Your task to perform on an android device: Add razer naga to the cart on ebay Image 0: 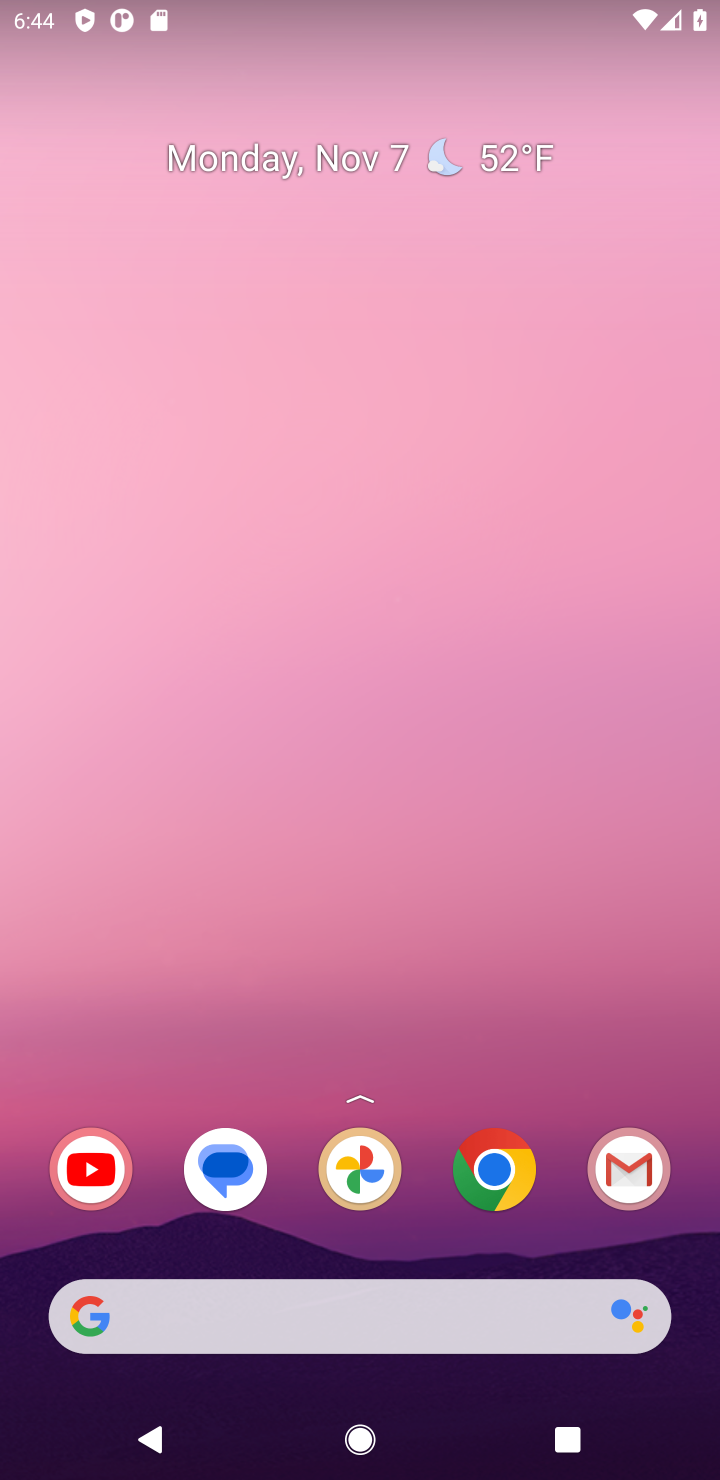
Step 0: click (496, 1184)
Your task to perform on an android device: Add razer naga to the cart on ebay Image 1: 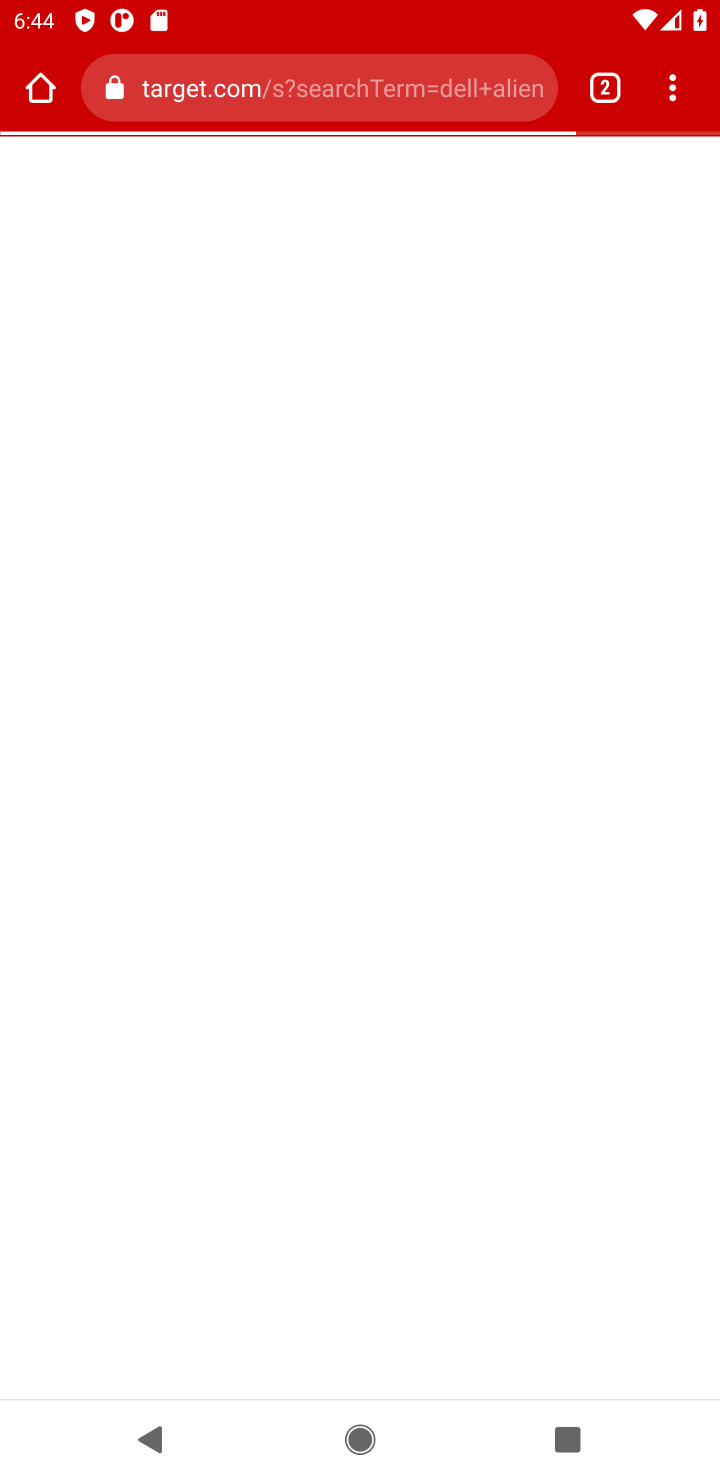
Step 1: click (613, 90)
Your task to perform on an android device: Add razer naga to the cart on ebay Image 2: 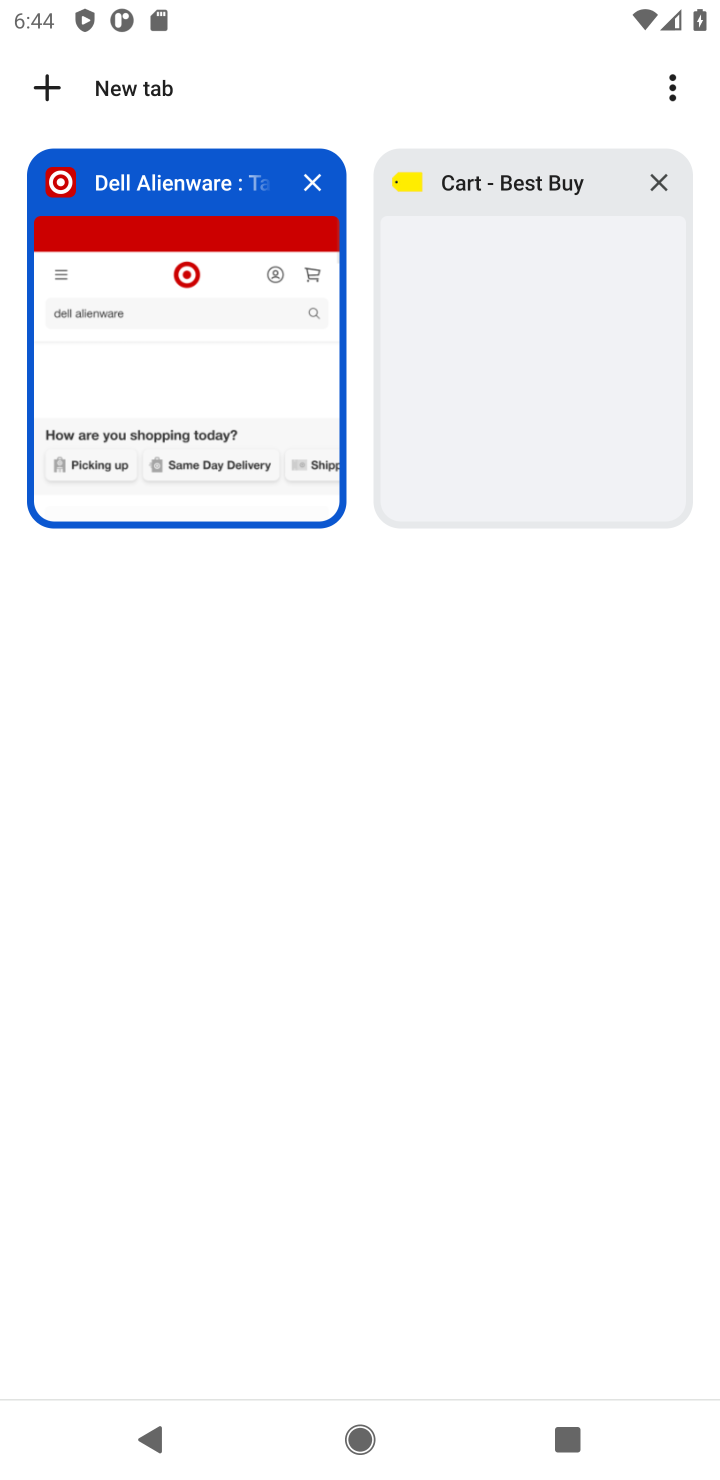
Step 2: click (46, 85)
Your task to perform on an android device: Add razer naga to the cart on ebay Image 3: 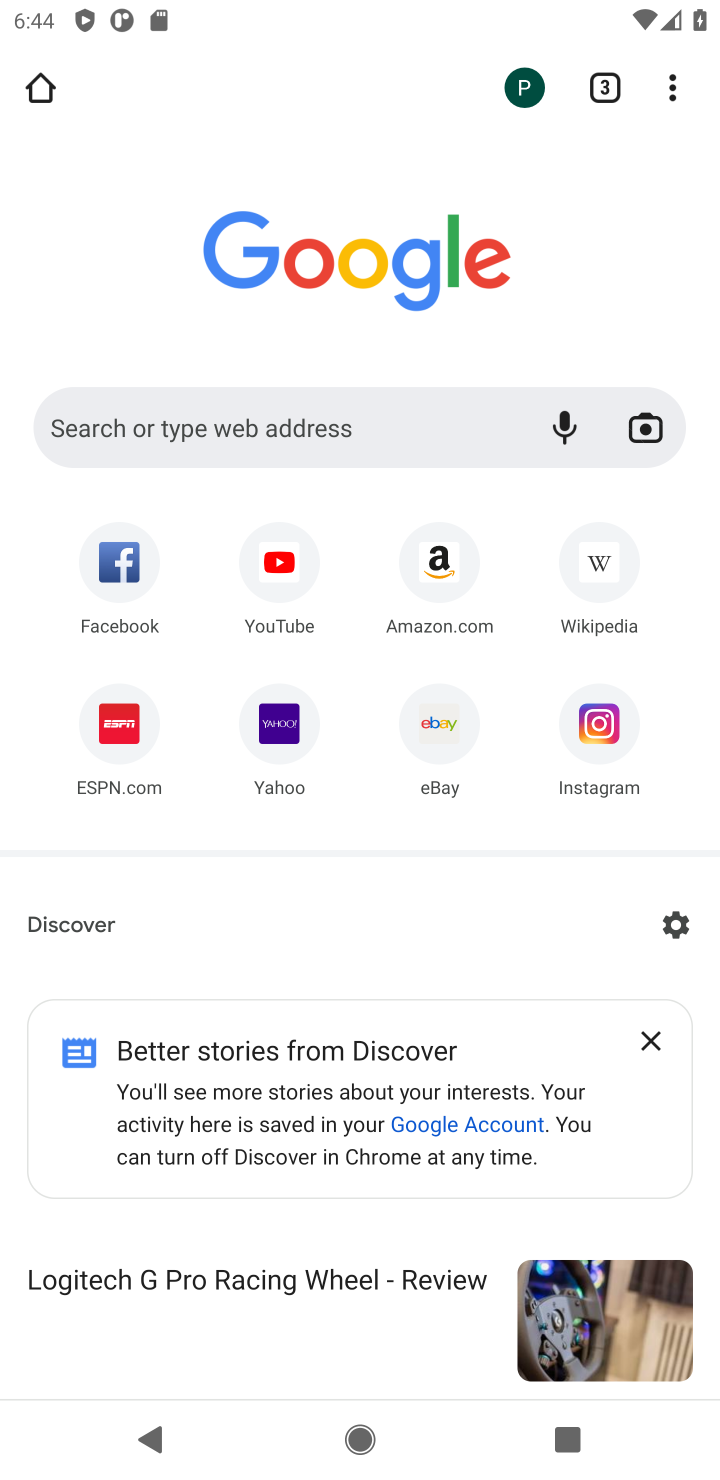
Step 3: click (438, 718)
Your task to perform on an android device: Add razer naga to the cart on ebay Image 4: 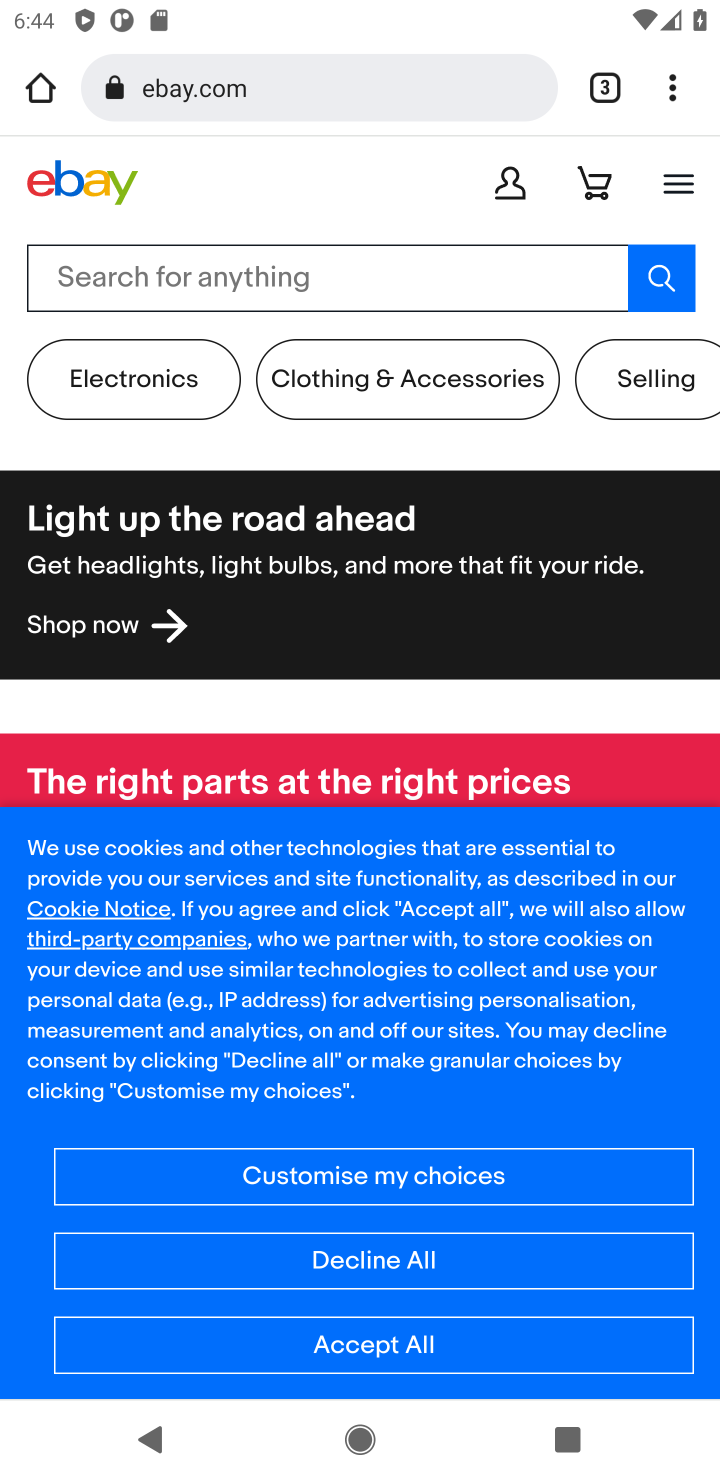
Step 4: click (372, 1251)
Your task to perform on an android device: Add razer naga to the cart on ebay Image 5: 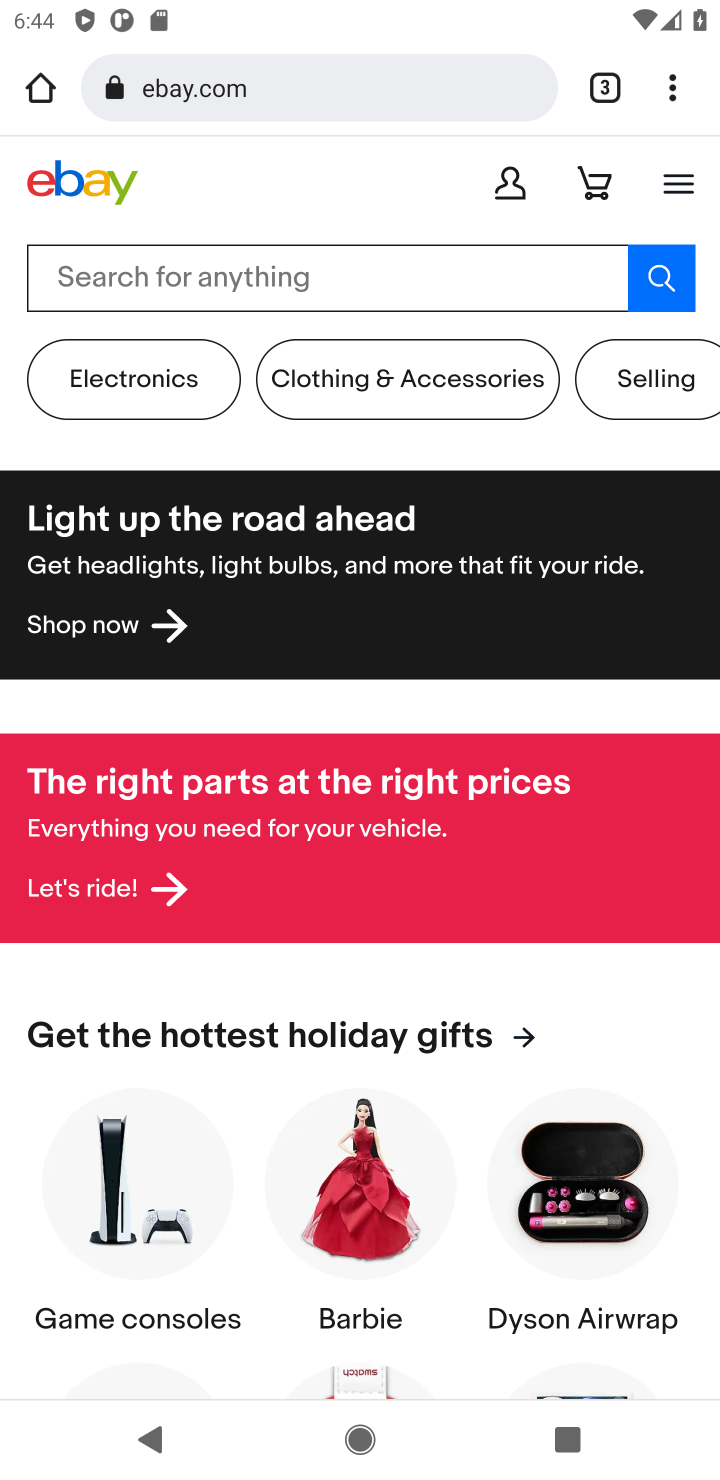
Step 5: click (267, 272)
Your task to perform on an android device: Add razer naga to the cart on ebay Image 6: 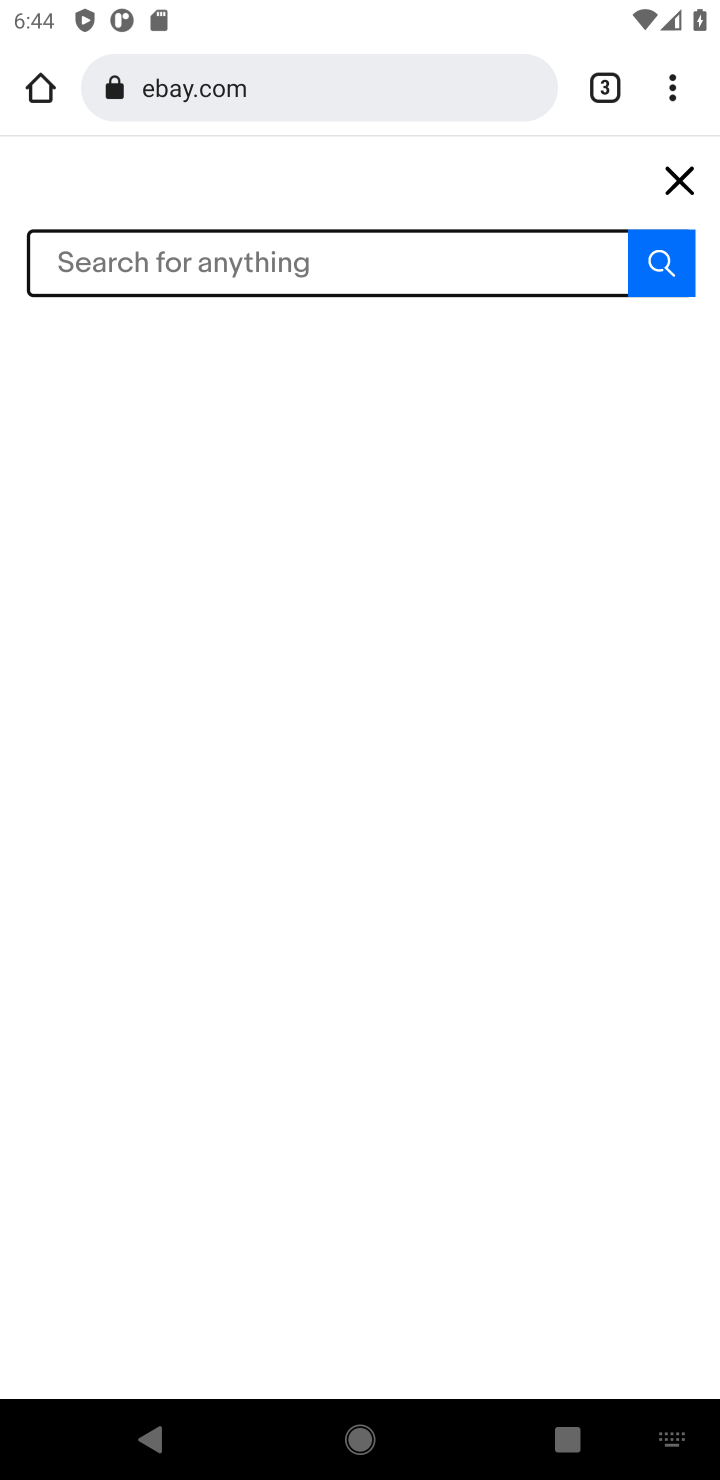
Step 6: type "razer naga"
Your task to perform on an android device: Add razer naga to the cart on ebay Image 7: 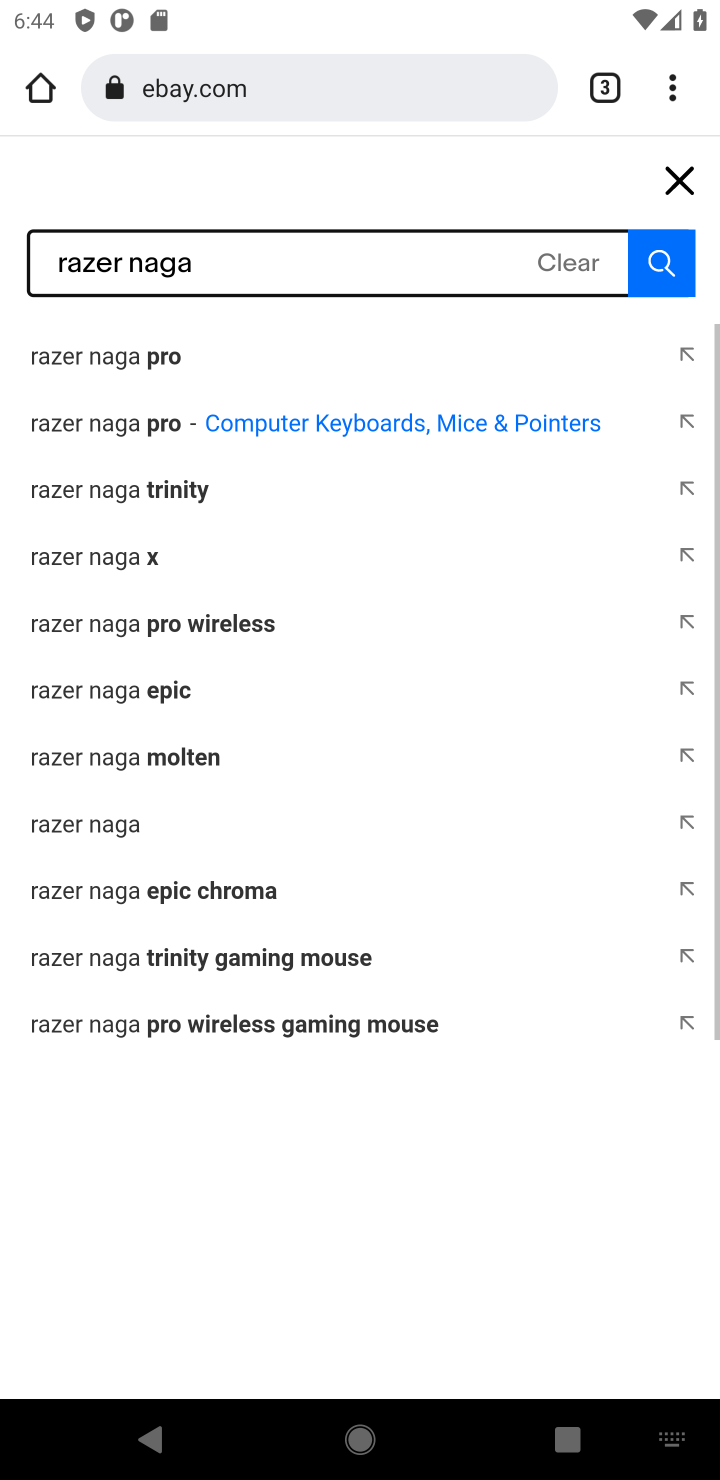
Step 7: click (112, 423)
Your task to perform on an android device: Add razer naga to the cart on ebay Image 8: 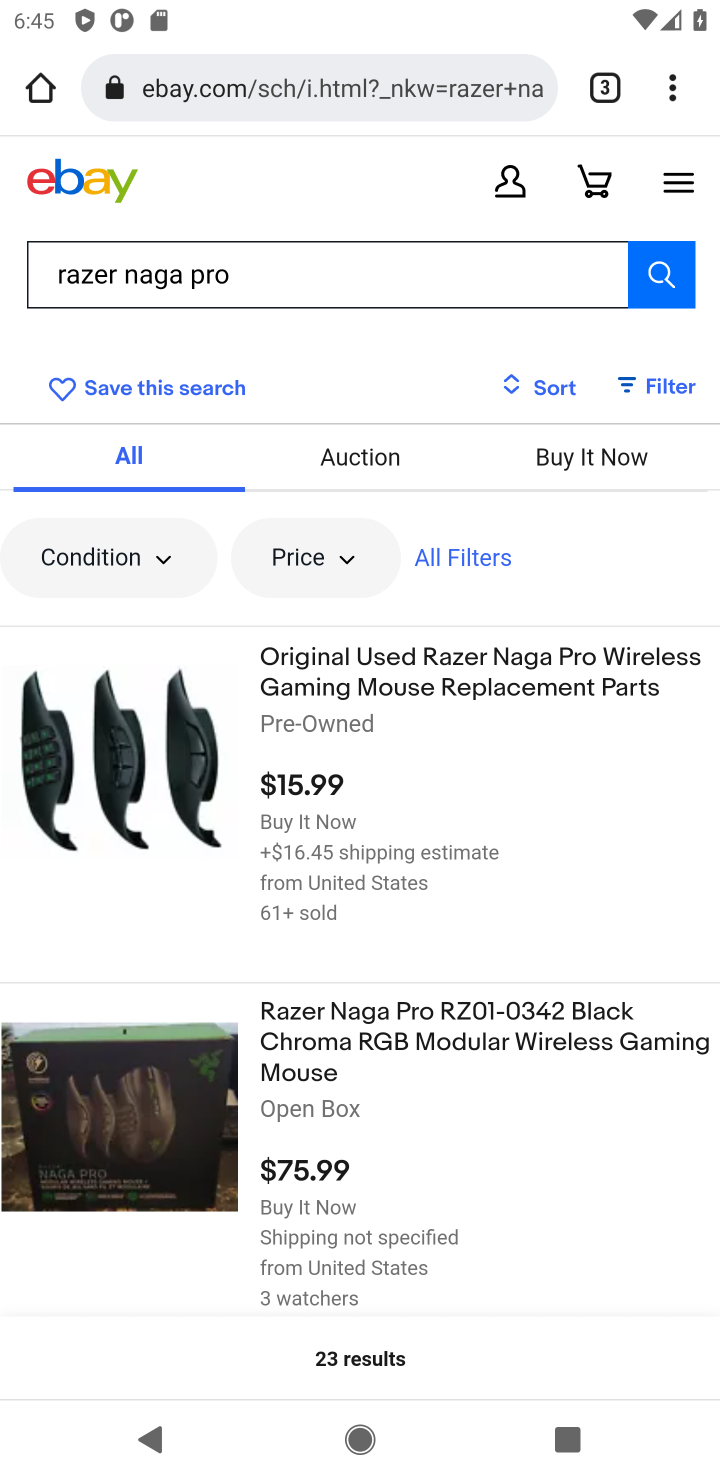
Step 8: click (427, 1036)
Your task to perform on an android device: Add razer naga to the cart on ebay Image 9: 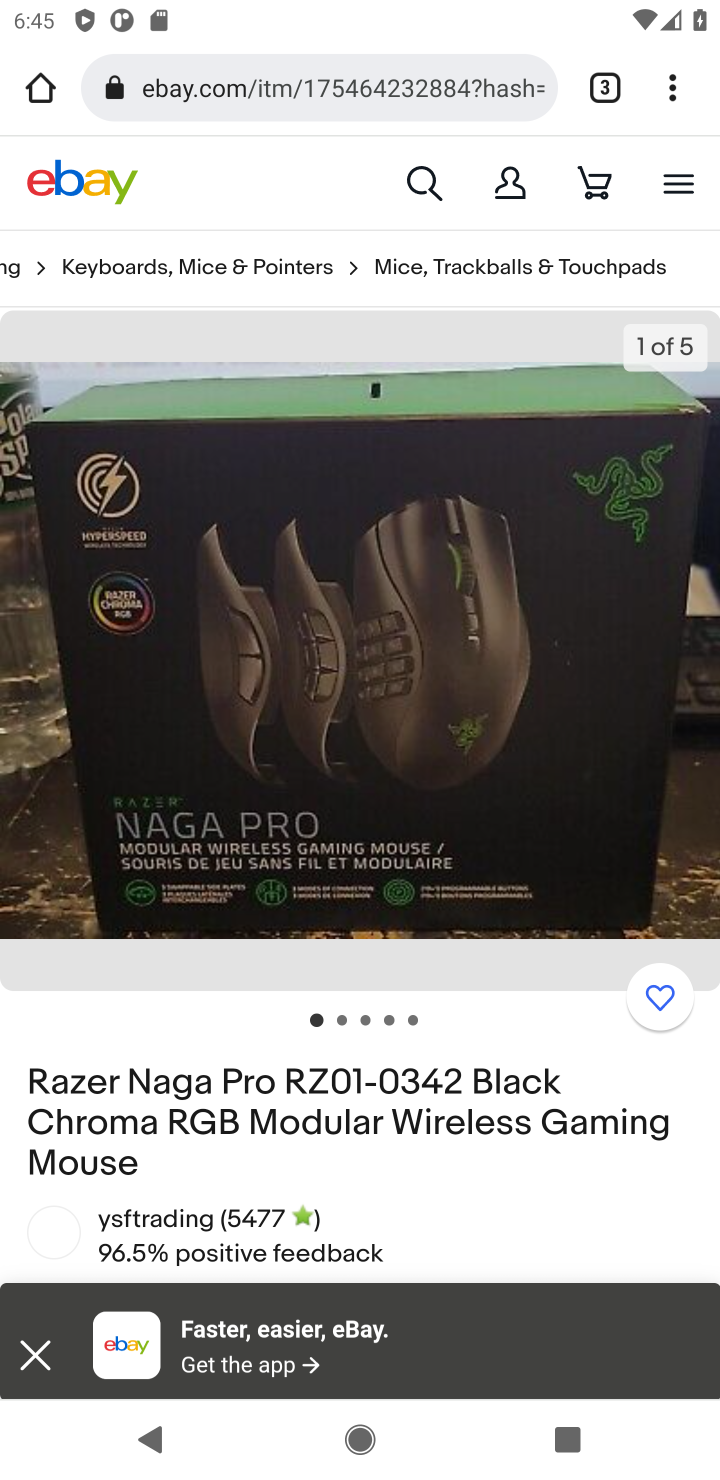
Step 9: click (25, 1365)
Your task to perform on an android device: Add razer naga to the cart on ebay Image 10: 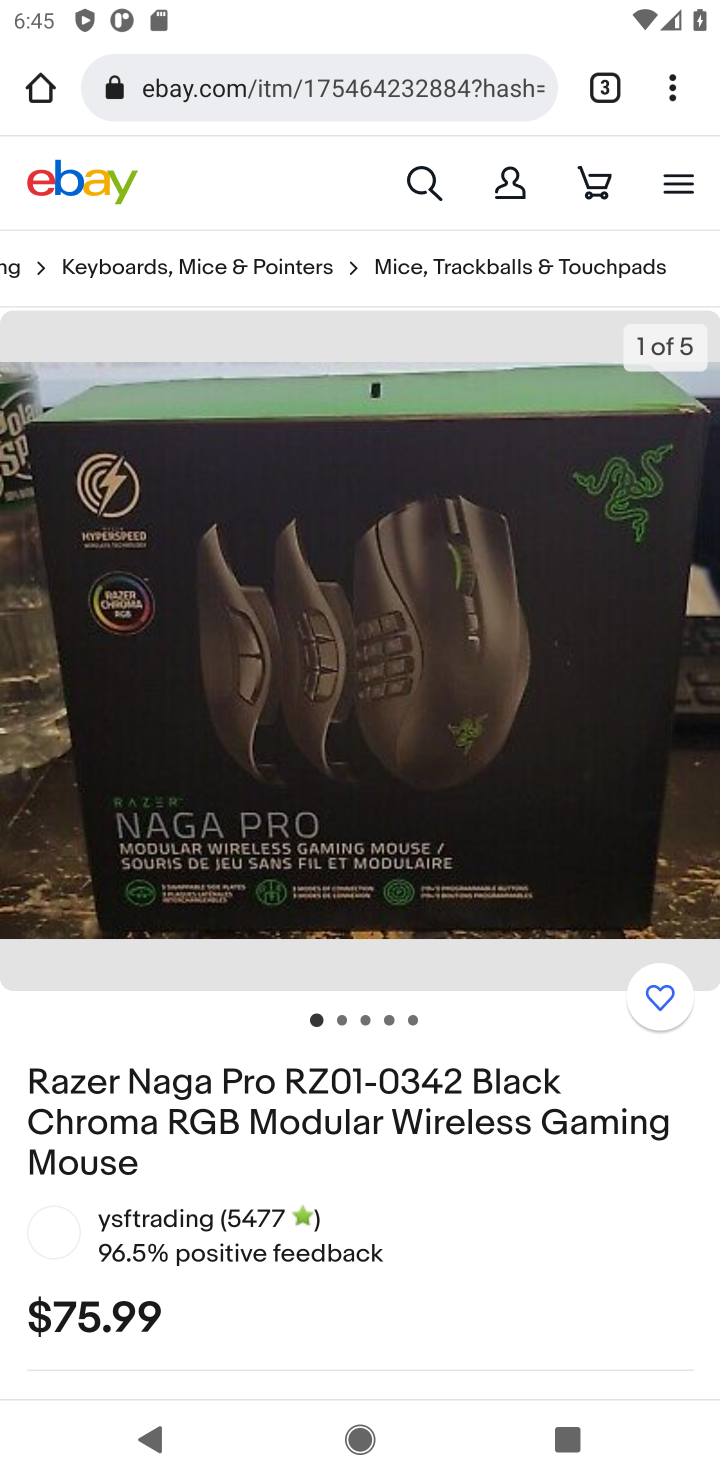
Step 10: drag from (471, 1168) to (712, 281)
Your task to perform on an android device: Add razer naga to the cart on ebay Image 11: 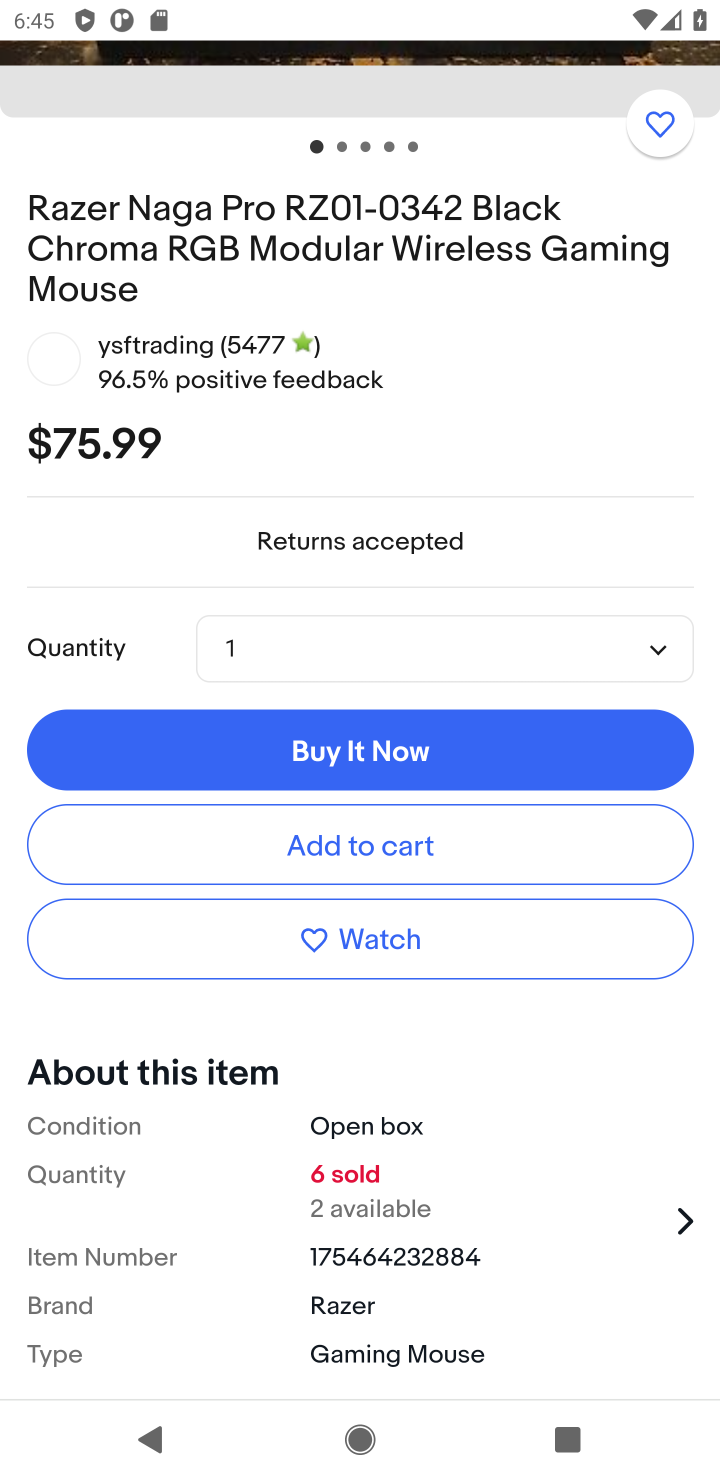
Step 11: click (361, 833)
Your task to perform on an android device: Add razer naga to the cart on ebay Image 12: 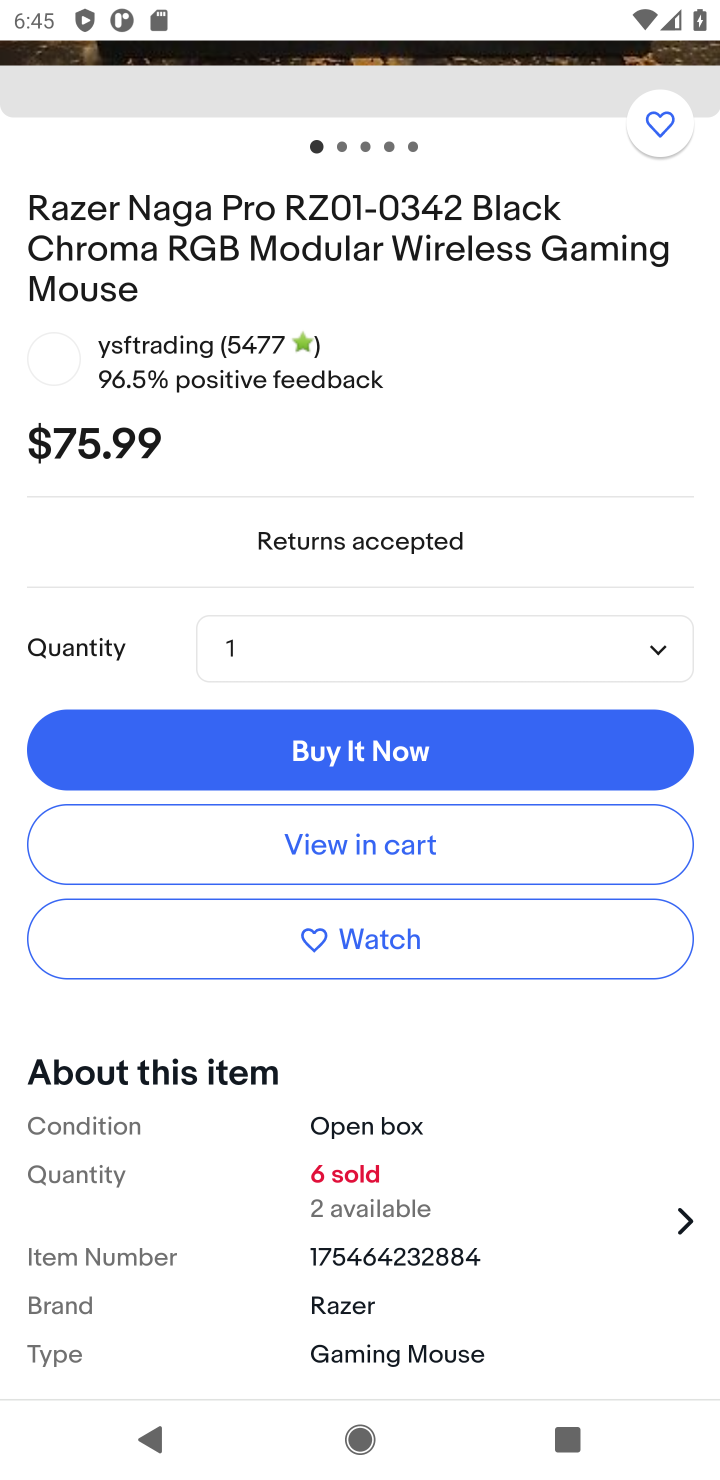
Step 12: task complete